Your task to perform on an android device: change the clock display to show seconds Image 0: 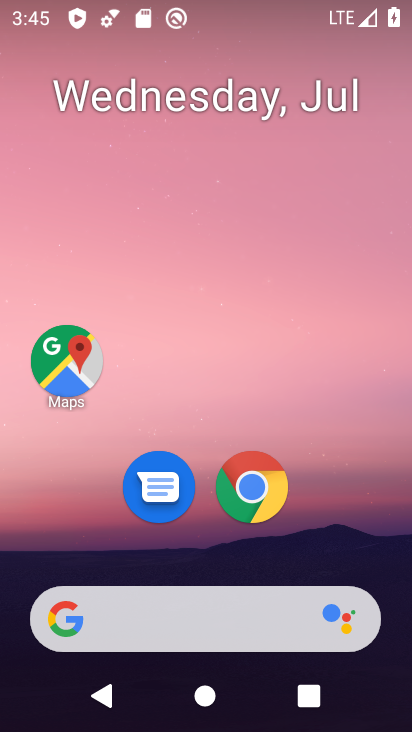
Step 0: drag from (202, 590) to (205, 177)
Your task to perform on an android device: change the clock display to show seconds Image 1: 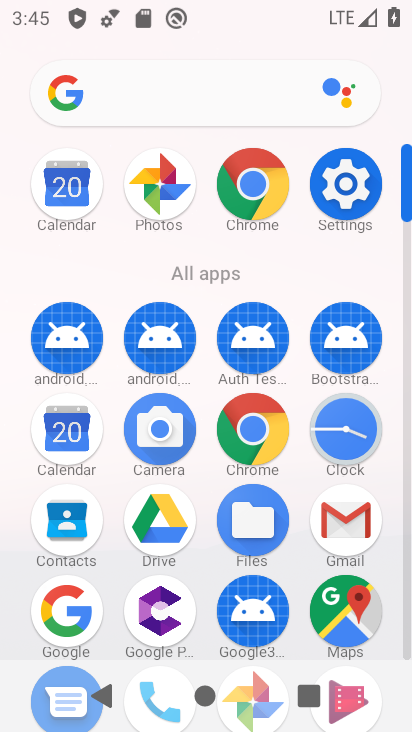
Step 1: click (346, 445)
Your task to perform on an android device: change the clock display to show seconds Image 2: 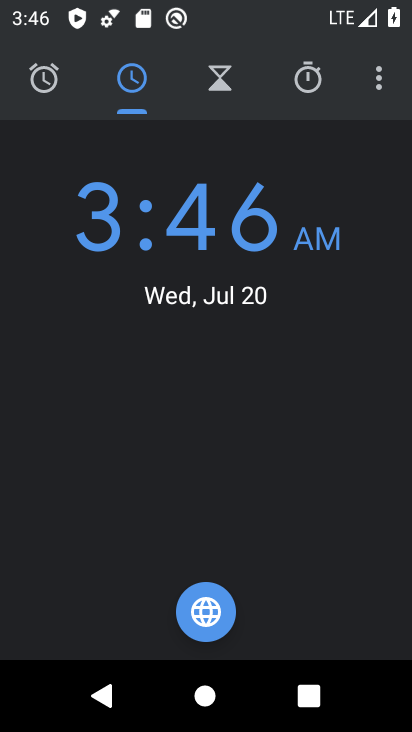
Step 2: click (384, 83)
Your task to perform on an android device: change the clock display to show seconds Image 3: 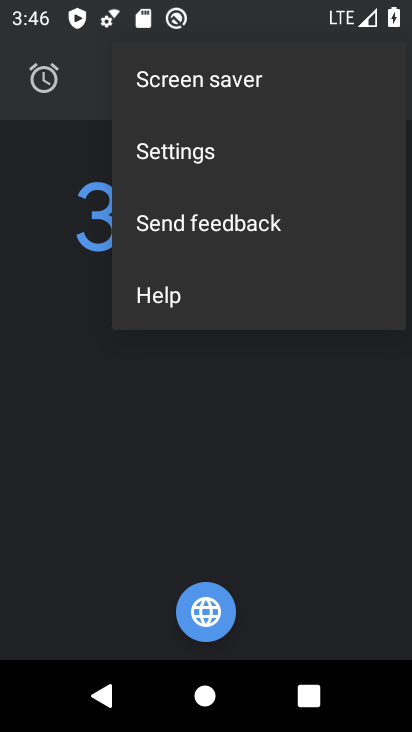
Step 3: click (197, 147)
Your task to perform on an android device: change the clock display to show seconds Image 4: 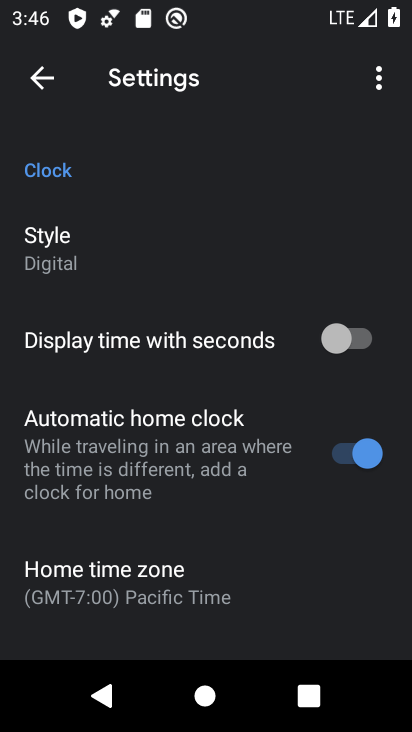
Step 4: click (152, 343)
Your task to perform on an android device: change the clock display to show seconds Image 5: 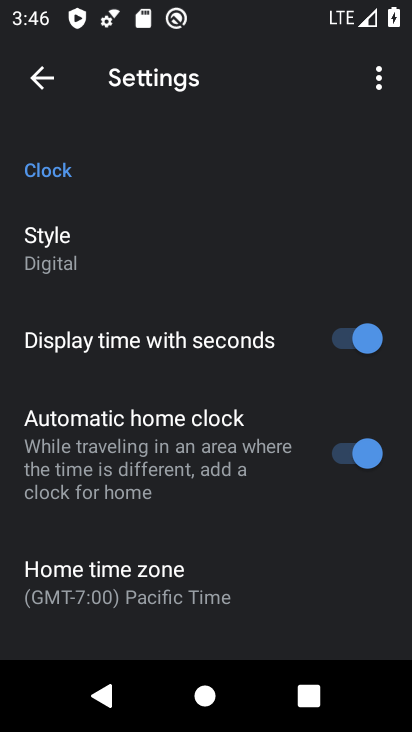
Step 5: task complete